Your task to perform on an android device: What's the US dollar exchange rate against the Australian Dollar? Image 0: 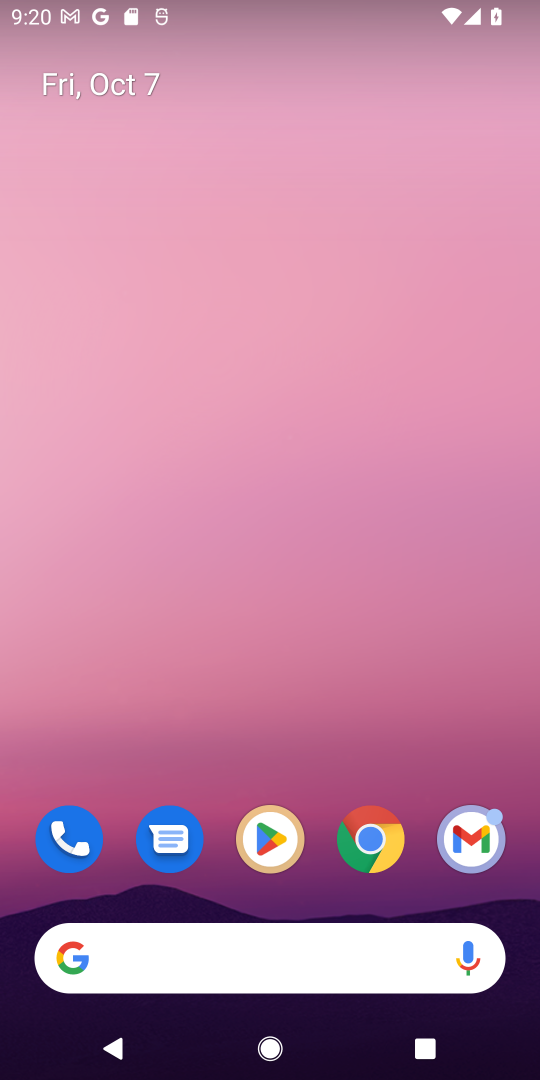
Step 0: click (372, 850)
Your task to perform on an android device: What's the US dollar exchange rate against the Australian Dollar? Image 1: 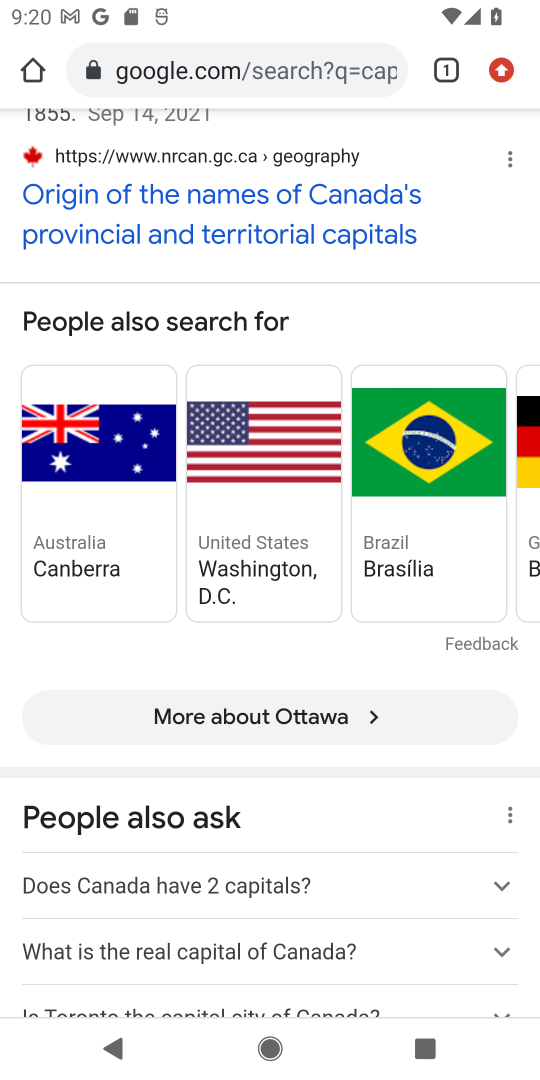
Step 1: click (264, 72)
Your task to perform on an android device: What's the US dollar exchange rate against the Australian Dollar? Image 2: 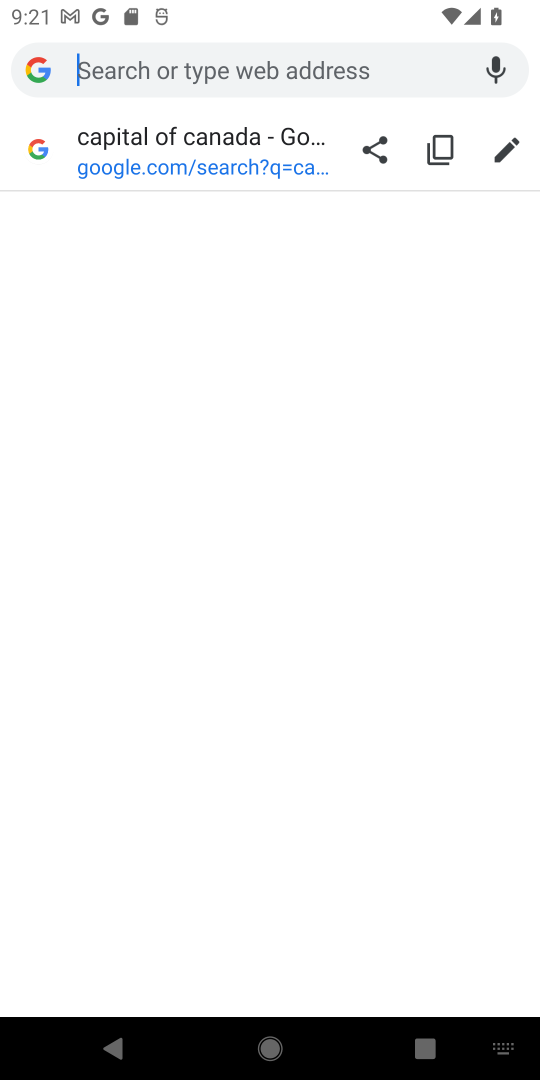
Step 2: type "us dollar exchange rtae against australian dollar"
Your task to perform on an android device: What's the US dollar exchange rate against the Australian Dollar? Image 3: 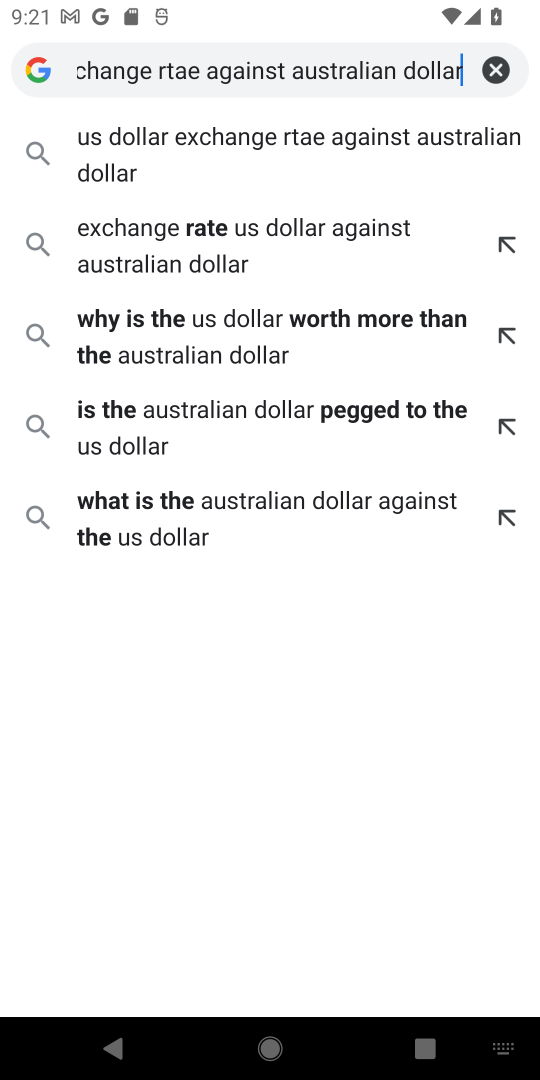
Step 3: click (146, 159)
Your task to perform on an android device: What's the US dollar exchange rate against the Australian Dollar? Image 4: 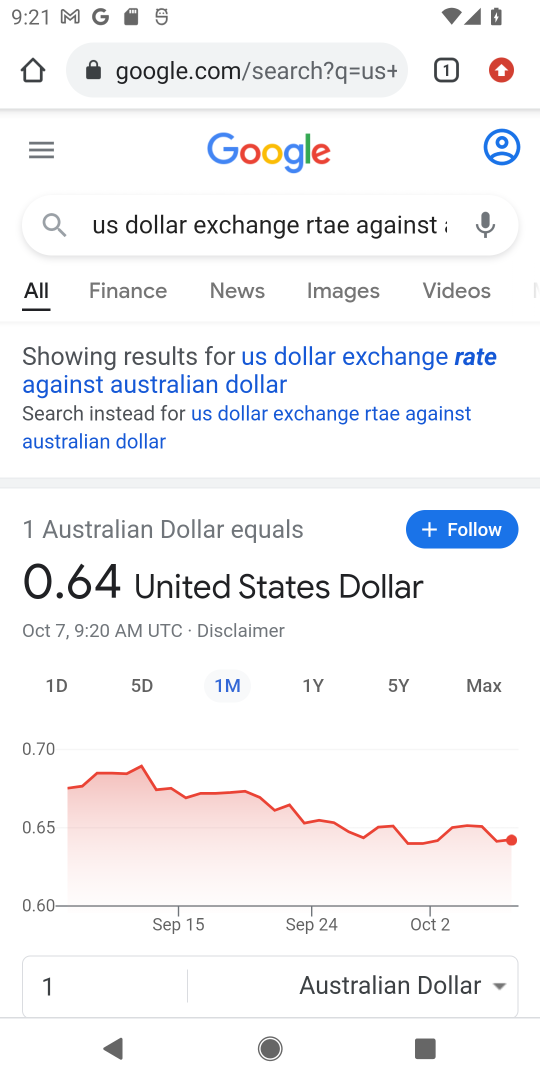
Step 4: drag from (304, 775) to (329, 446)
Your task to perform on an android device: What's the US dollar exchange rate against the Australian Dollar? Image 5: 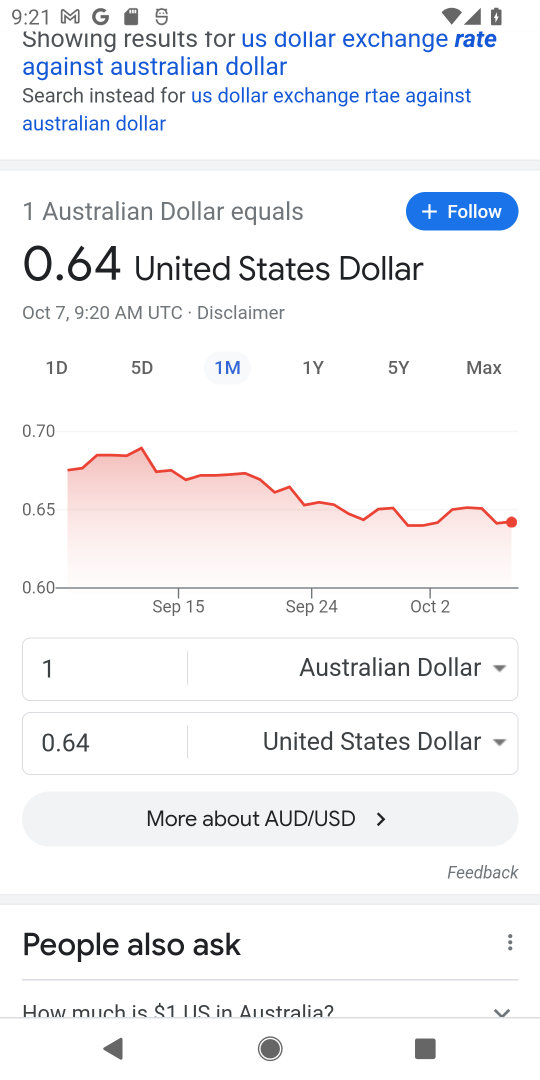
Step 5: drag from (412, 786) to (470, 464)
Your task to perform on an android device: What's the US dollar exchange rate against the Australian Dollar? Image 6: 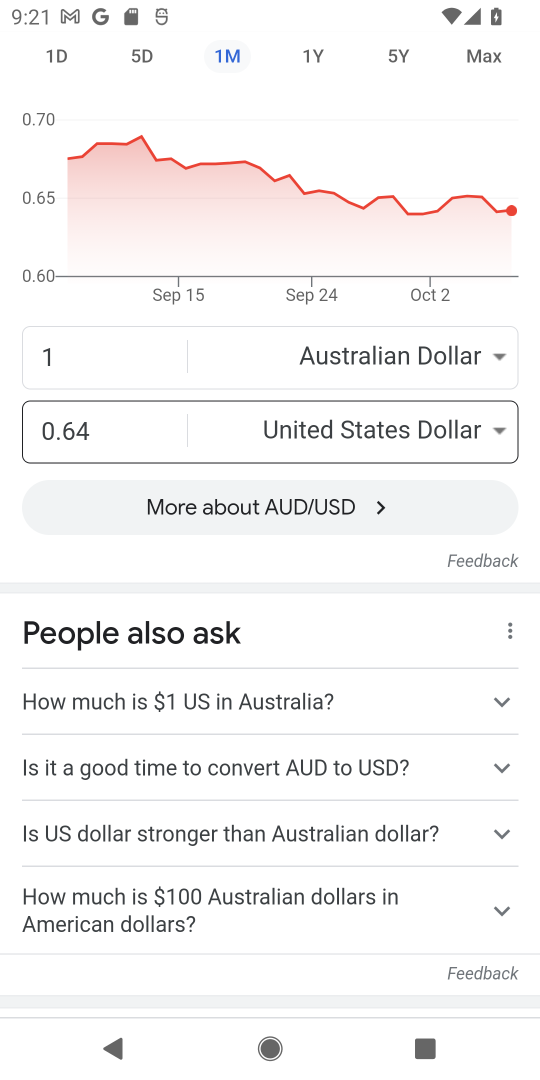
Step 6: drag from (334, 810) to (422, 520)
Your task to perform on an android device: What's the US dollar exchange rate against the Australian Dollar? Image 7: 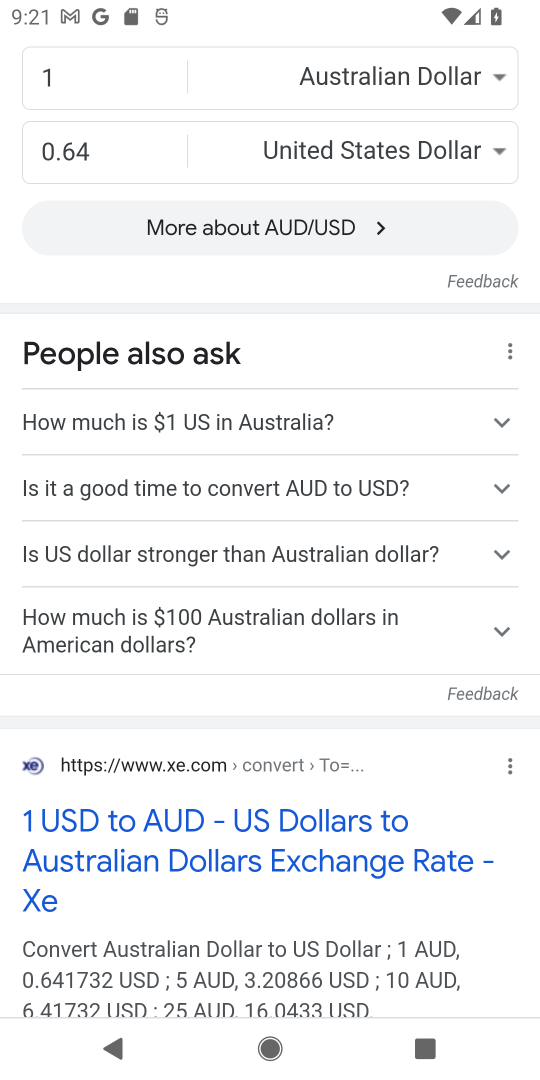
Step 7: drag from (307, 481) to (304, 906)
Your task to perform on an android device: What's the US dollar exchange rate against the Australian Dollar? Image 8: 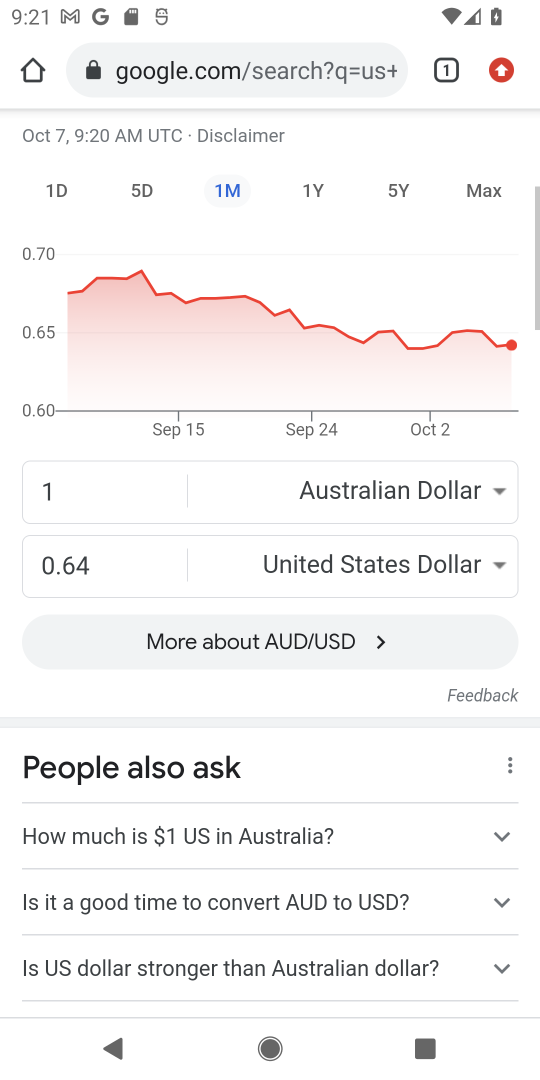
Step 8: drag from (332, 495) to (293, 936)
Your task to perform on an android device: What's the US dollar exchange rate against the Australian Dollar? Image 9: 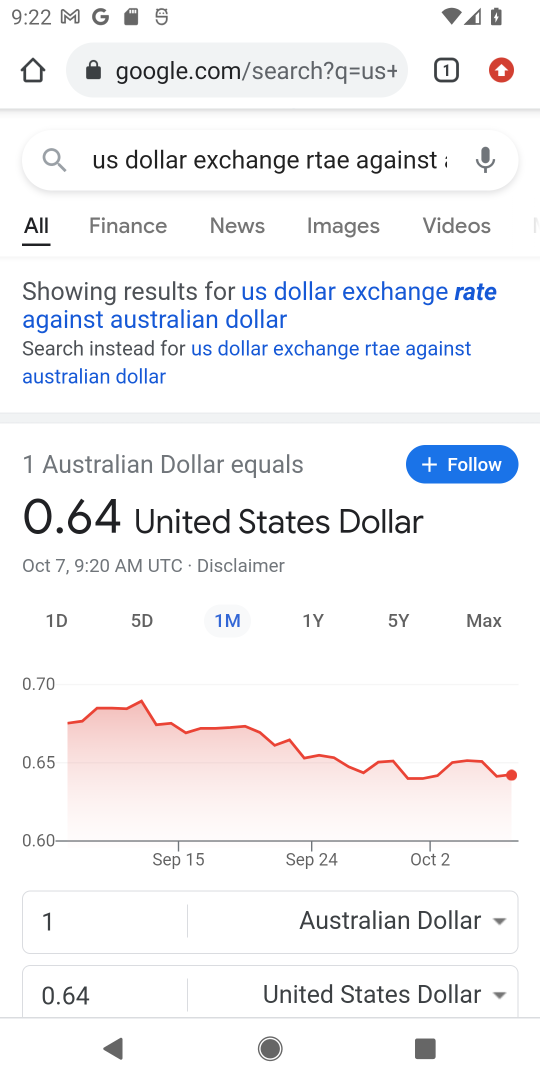
Step 9: drag from (333, 638) to (382, 295)
Your task to perform on an android device: What's the US dollar exchange rate against the Australian Dollar? Image 10: 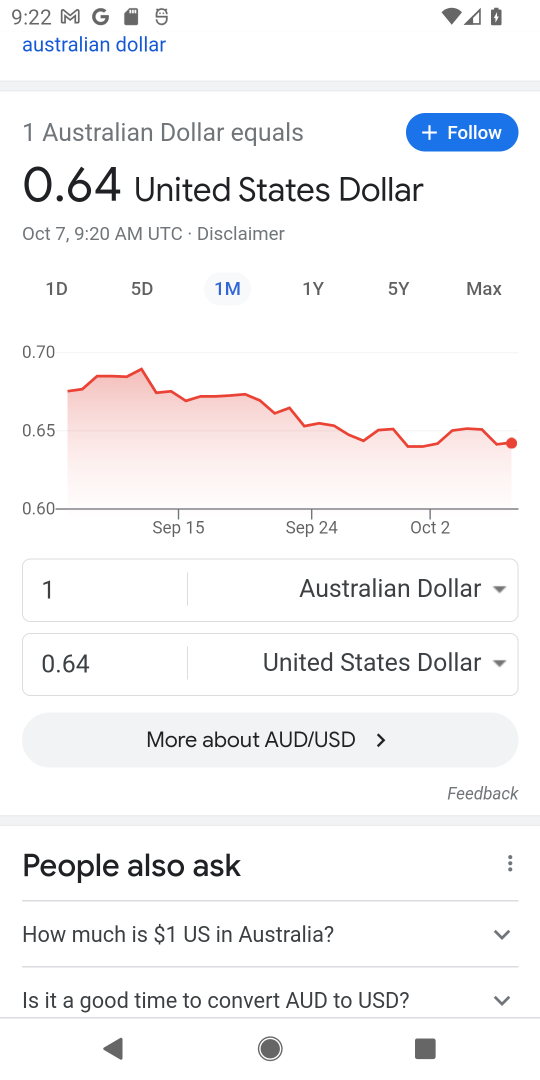
Step 10: click (255, 936)
Your task to perform on an android device: What's the US dollar exchange rate against the Australian Dollar? Image 11: 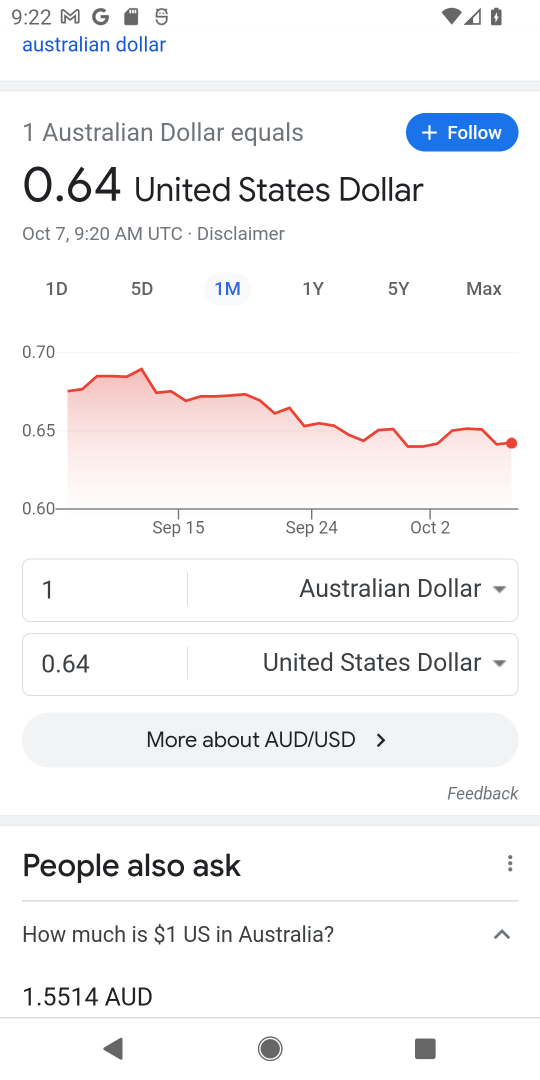
Step 11: task complete